Your task to perform on an android device: see tabs open on other devices in the chrome app Image 0: 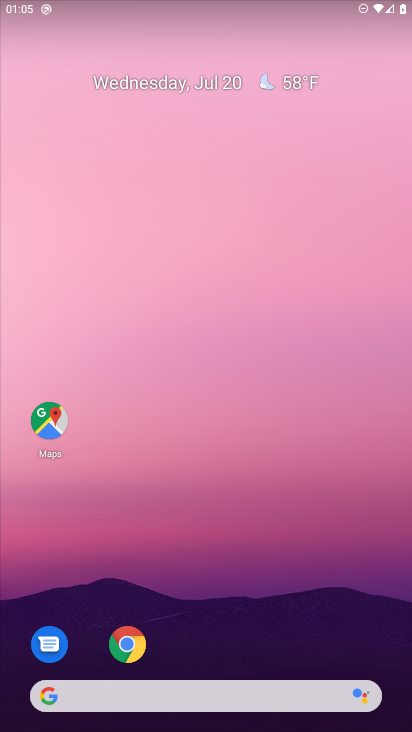
Step 0: click (122, 636)
Your task to perform on an android device: see tabs open on other devices in the chrome app Image 1: 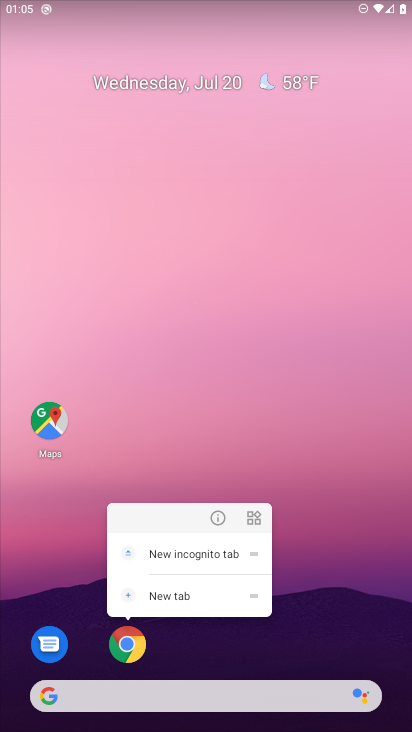
Step 1: click (154, 659)
Your task to perform on an android device: see tabs open on other devices in the chrome app Image 2: 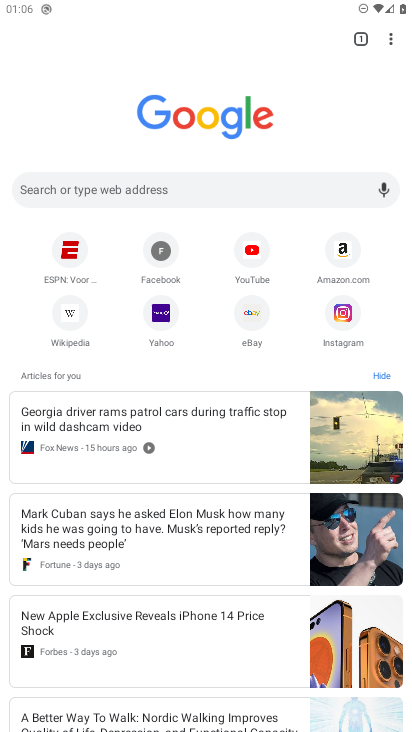
Step 2: click (389, 29)
Your task to perform on an android device: see tabs open on other devices in the chrome app Image 3: 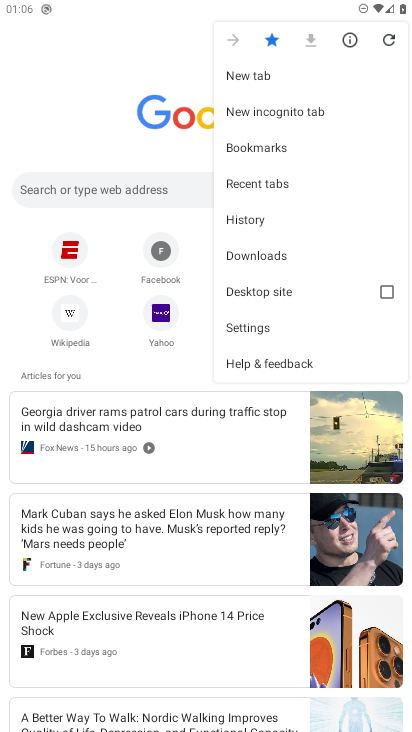
Step 3: click (248, 182)
Your task to perform on an android device: see tabs open on other devices in the chrome app Image 4: 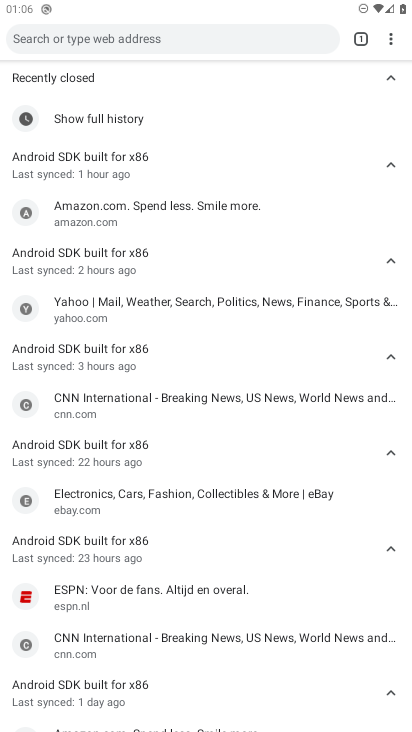
Step 4: task complete